Your task to perform on an android device: Go to Yahoo.com Image 0: 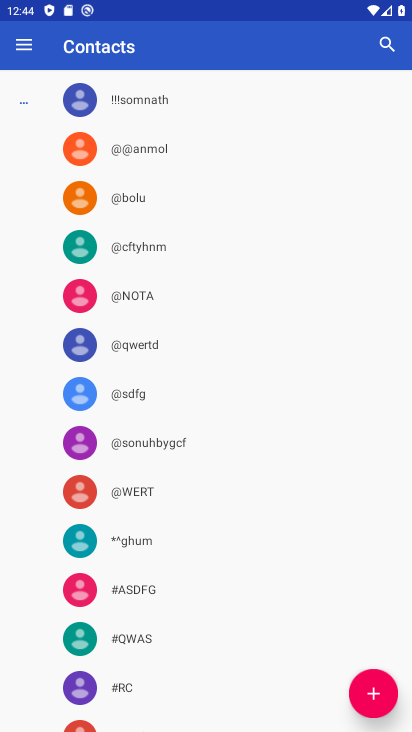
Step 0: press home button
Your task to perform on an android device: Go to Yahoo.com Image 1: 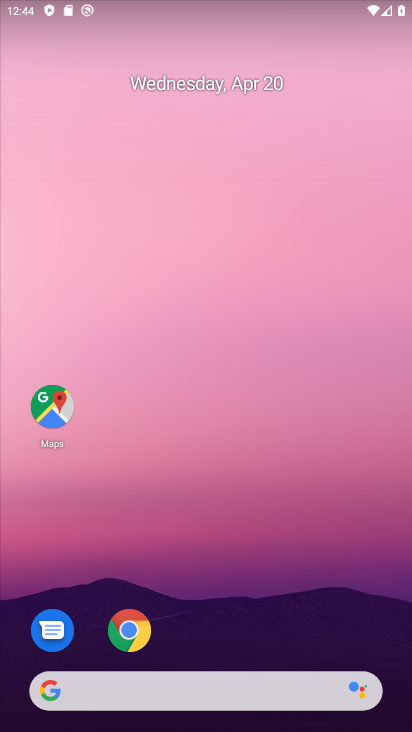
Step 1: click (138, 634)
Your task to perform on an android device: Go to Yahoo.com Image 2: 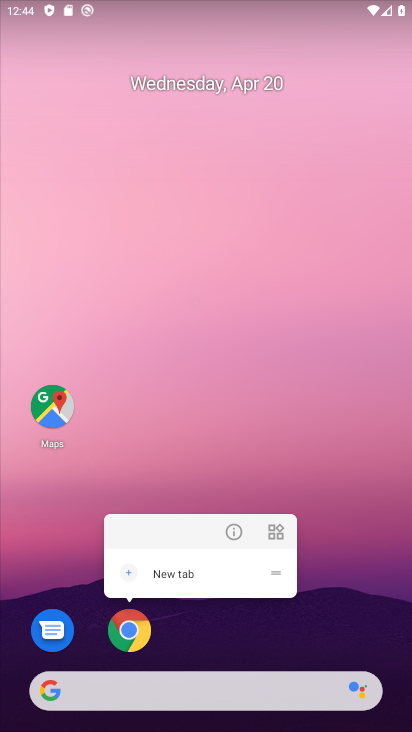
Step 2: click (127, 625)
Your task to perform on an android device: Go to Yahoo.com Image 3: 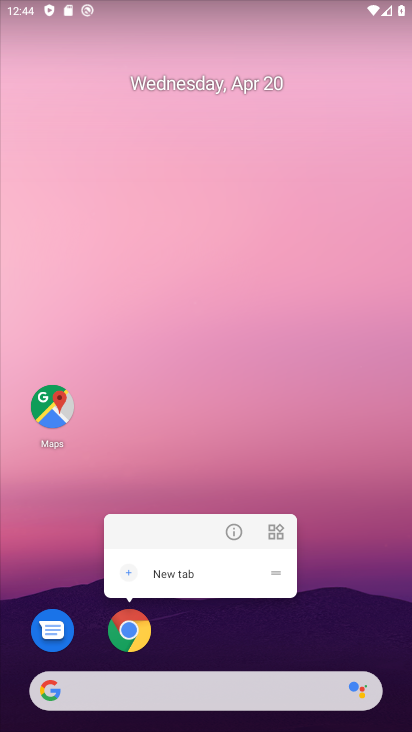
Step 3: click (142, 639)
Your task to perform on an android device: Go to Yahoo.com Image 4: 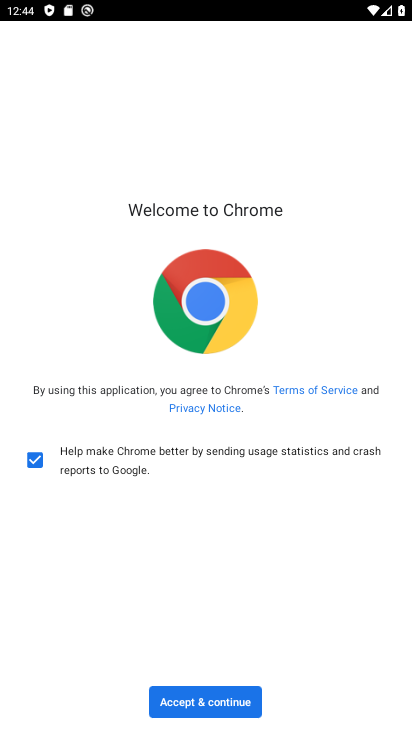
Step 4: click (238, 702)
Your task to perform on an android device: Go to Yahoo.com Image 5: 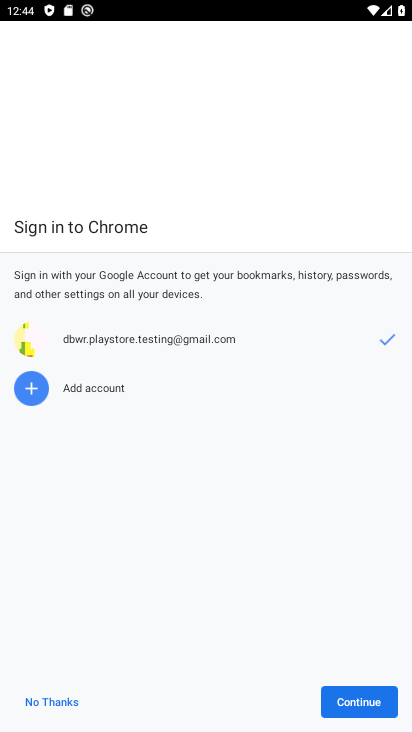
Step 5: click (348, 705)
Your task to perform on an android device: Go to Yahoo.com Image 6: 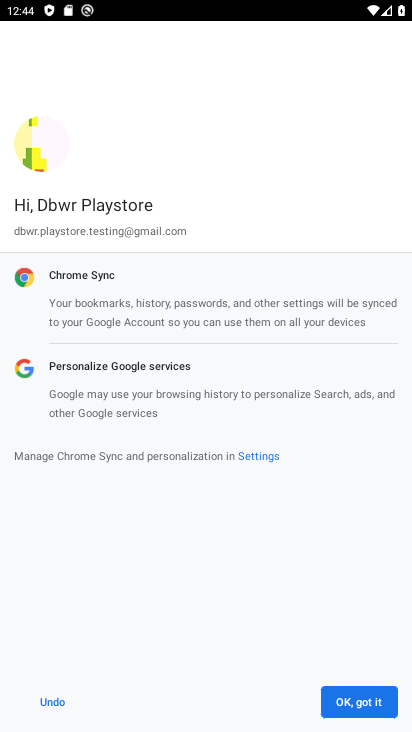
Step 6: click (382, 707)
Your task to perform on an android device: Go to Yahoo.com Image 7: 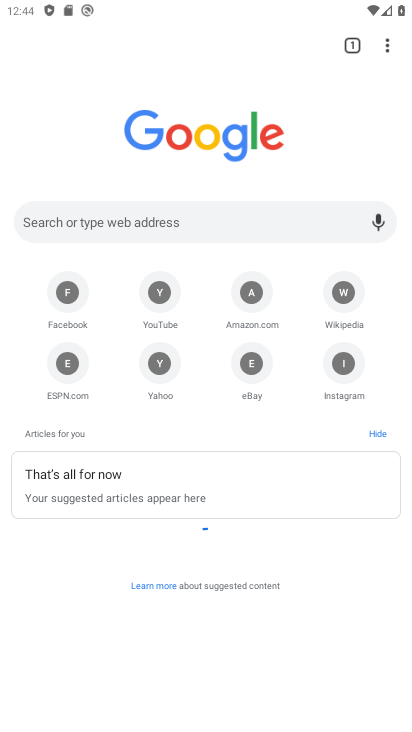
Step 7: click (195, 213)
Your task to perform on an android device: Go to Yahoo.com Image 8: 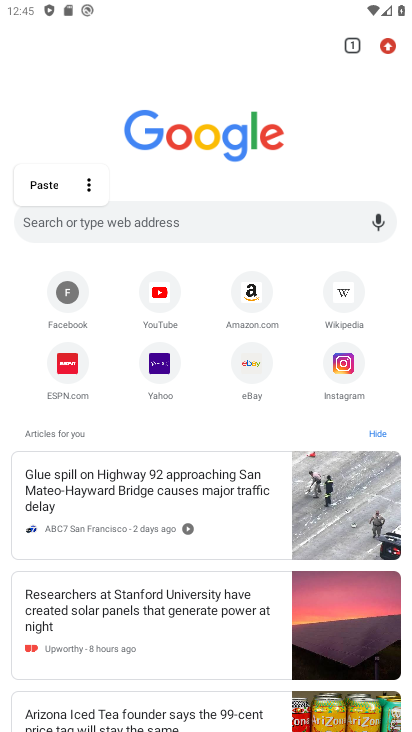
Step 8: type "yahoo.com"
Your task to perform on an android device: Go to Yahoo.com Image 9: 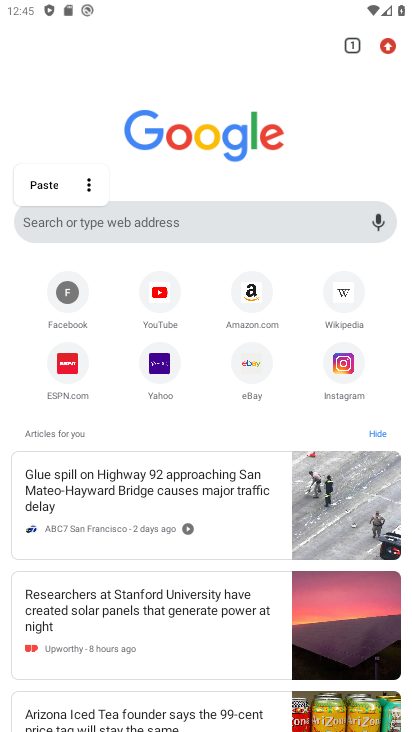
Step 9: click (192, 216)
Your task to perform on an android device: Go to Yahoo.com Image 10: 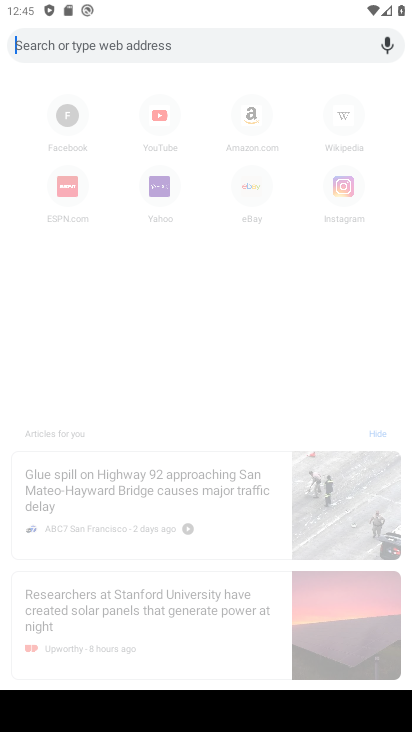
Step 10: type "yahoo.com"
Your task to perform on an android device: Go to Yahoo.com Image 11: 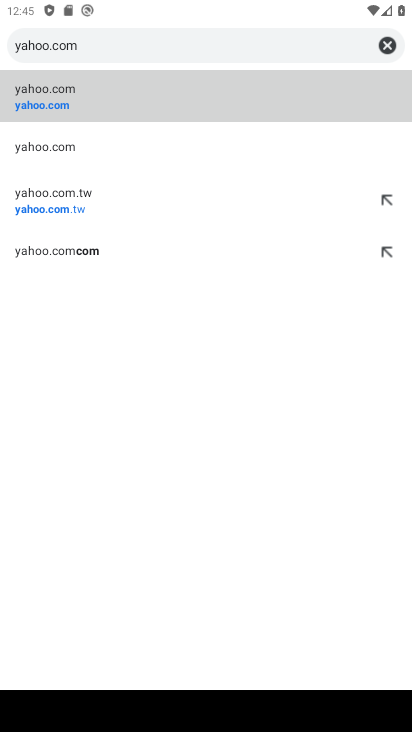
Step 11: click (55, 101)
Your task to perform on an android device: Go to Yahoo.com Image 12: 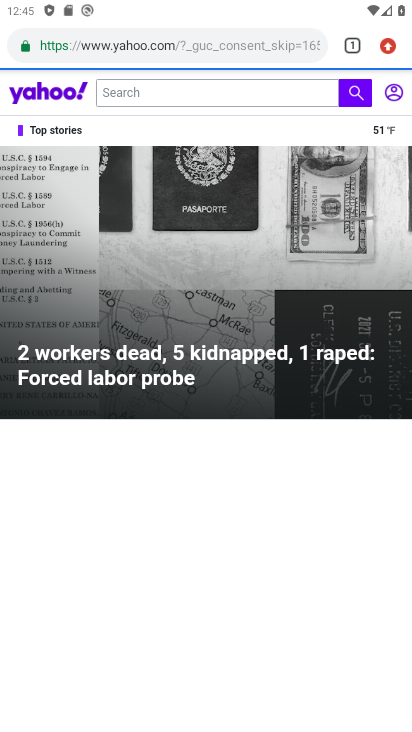
Step 12: task complete